Your task to perform on an android device: Open Chrome and go to the settings page Image 0: 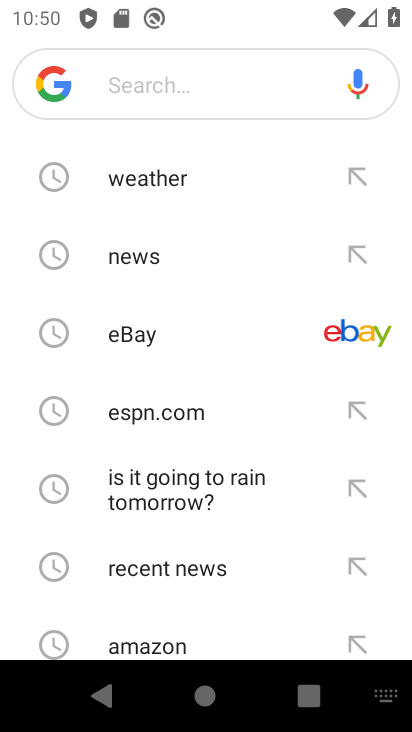
Step 0: press home button
Your task to perform on an android device: Open Chrome and go to the settings page Image 1: 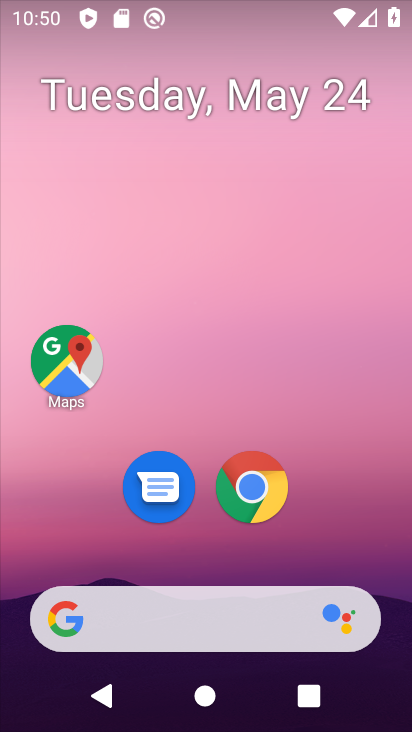
Step 1: drag from (203, 525) to (283, 34)
Your task to perform on an android device: Open Chrome and go to the settings page Image 2: 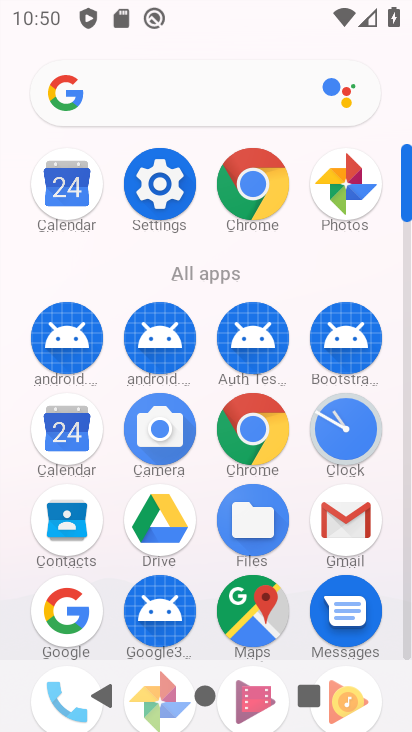
Step 2: click (258, 185)
Your task to perform on an android device: Open Chrome and go to the settings page Image 3: 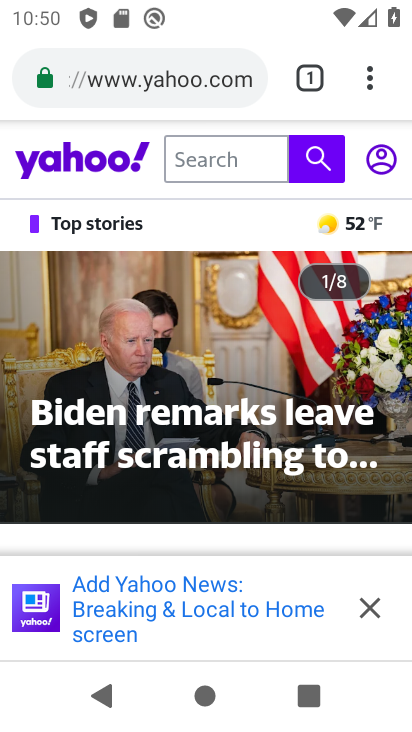
Step 3: task complete